Your task to perform on an android device: Open Google Chrome Image 0: 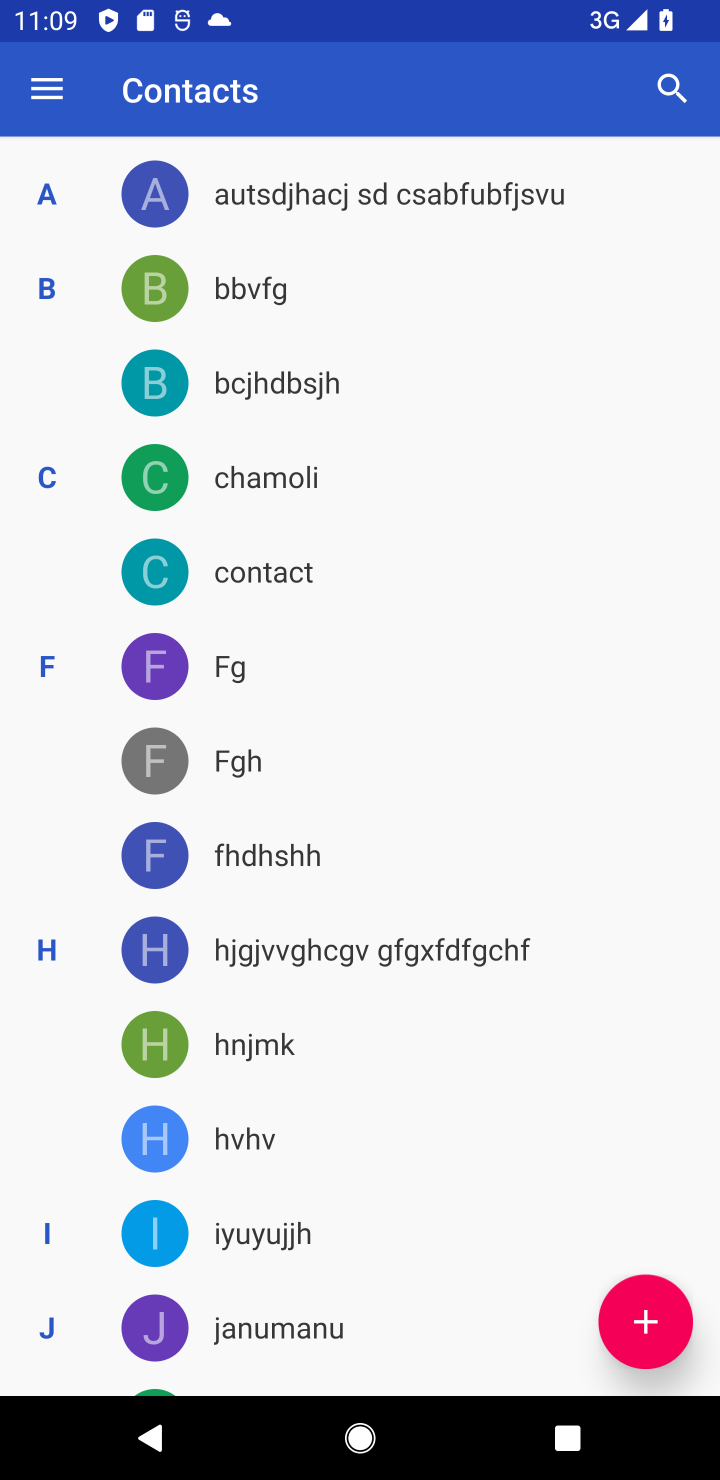
Step 0: press home button
Your task to perform on an android device: Open Google Chrome Image 1: 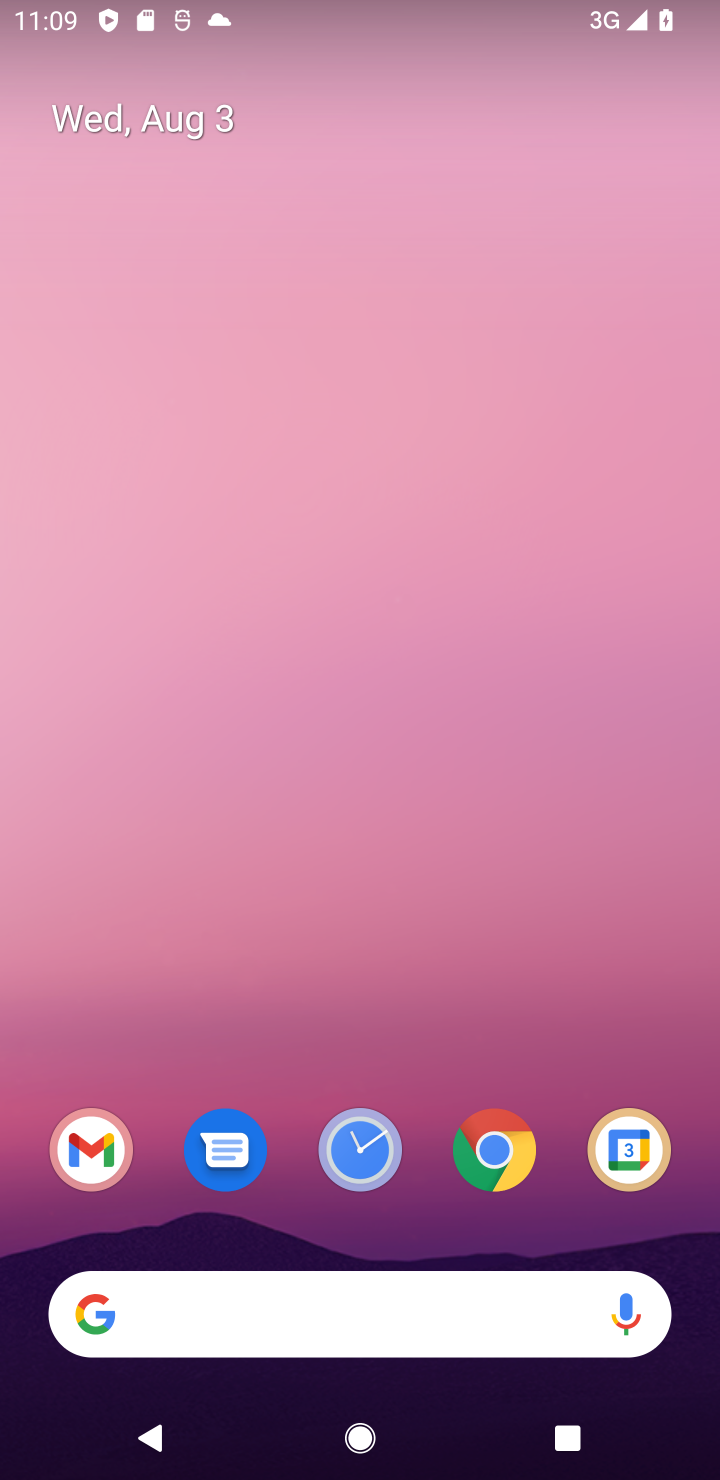
Step 1: drag from (557, 1030) to (572, 454)
Your task to perform on an android device: Open Google Chrome Image 2: 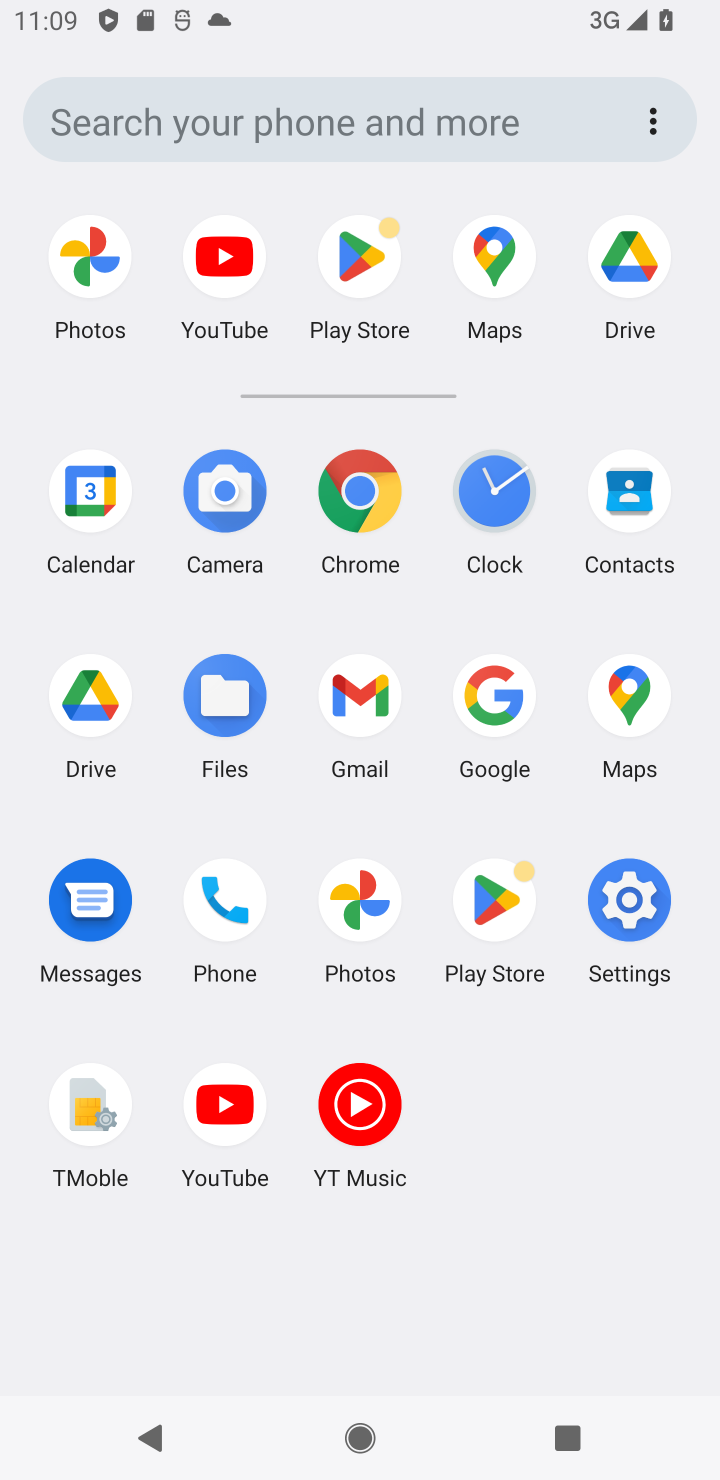
Step 2: click (370, 497)
Your task to perform on an android device: Open Google Chrome Image 3: 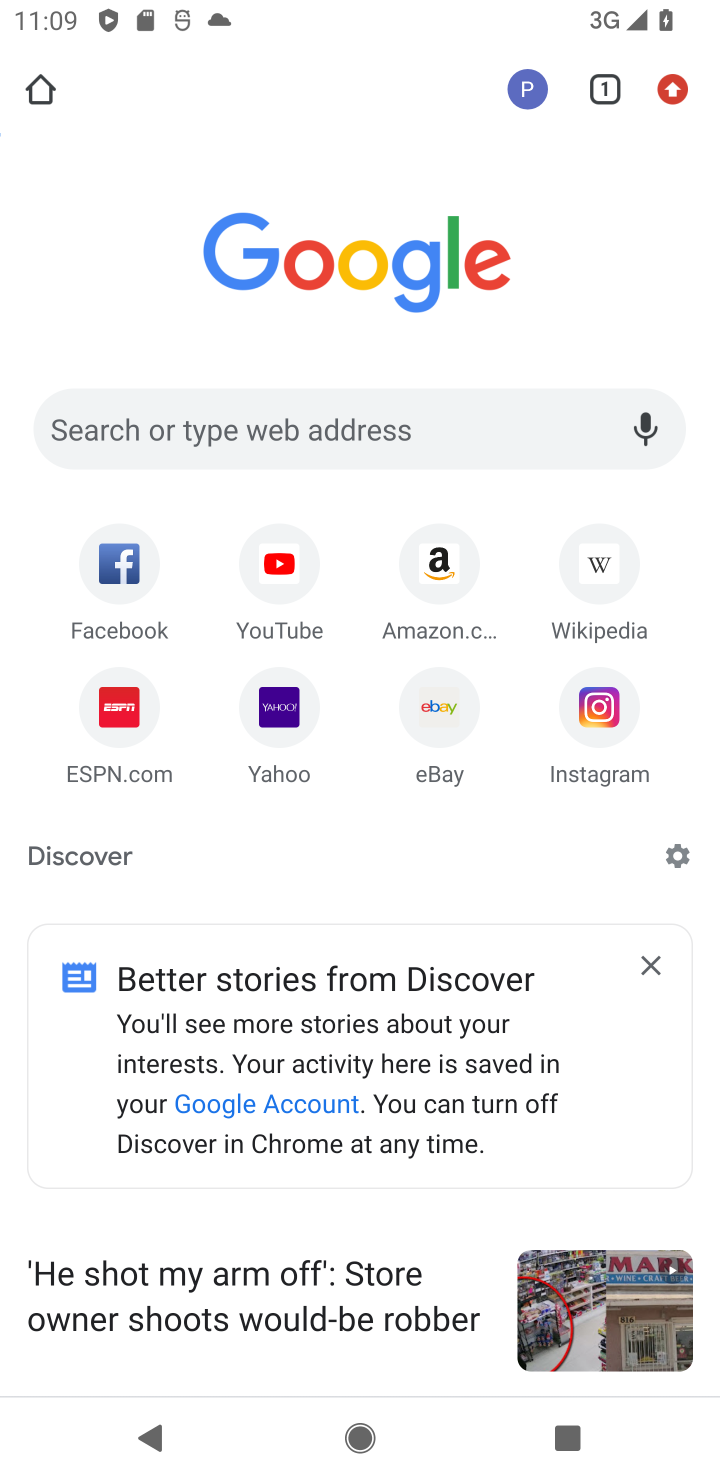
Step 3: task complete